Your task to perform on an android device: Open Google Maps and go to "Timeline" Image 0: 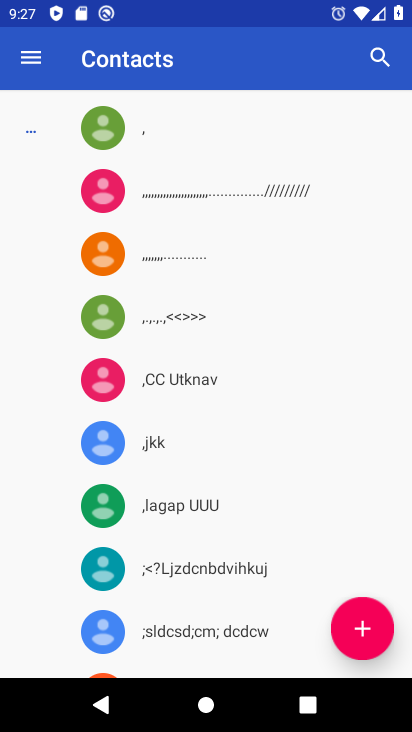
Step 0: press home button
Your task to perform on an android device: Open Google Maps and go to "Timeline" Image 1: 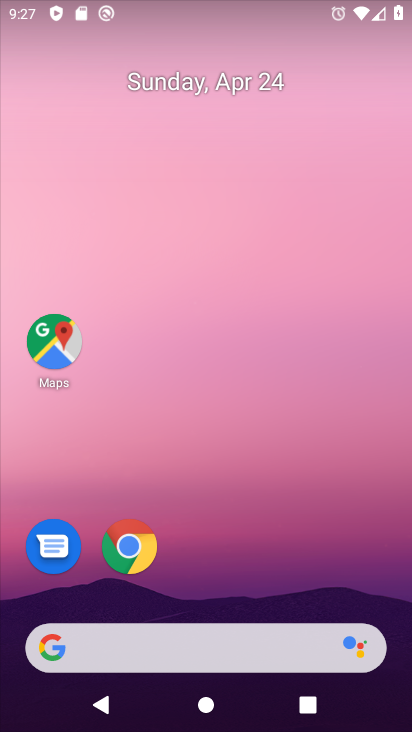
Step 1: click (58, 342)
Your task to perform on an android device: Open Google Maps and go to "Timeline" Image 2: 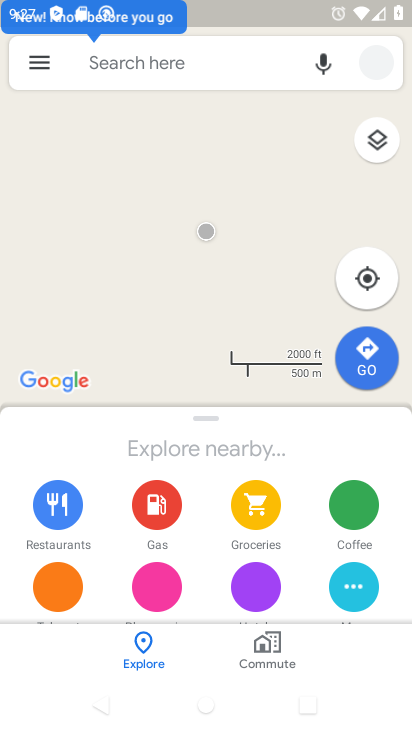
Step 2: click (28, 59)
Your task to perform on an android device: Open Google Maps and go to "Timeline" Image 3: 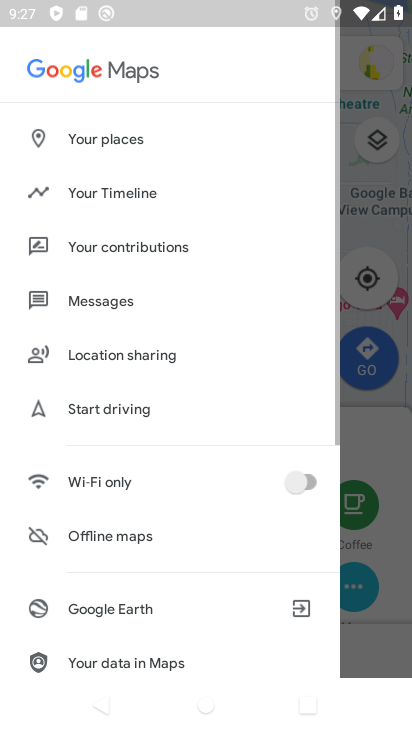
Step 3: click (101, 193)
Your task to perform on an android device: Open Google Maps and go to "Timeline" Image 4: 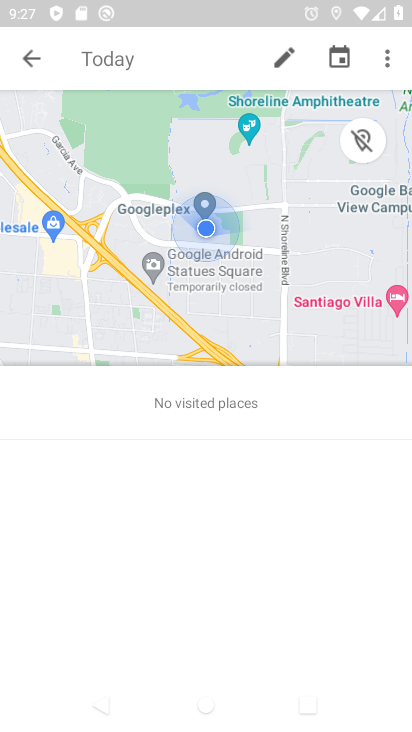
Step 4: task complete